Your task to perform on an android device: Show the shopping cart on walmart.com. Add razer naga to the cart on walmart.com, then select checkout. Image 0: 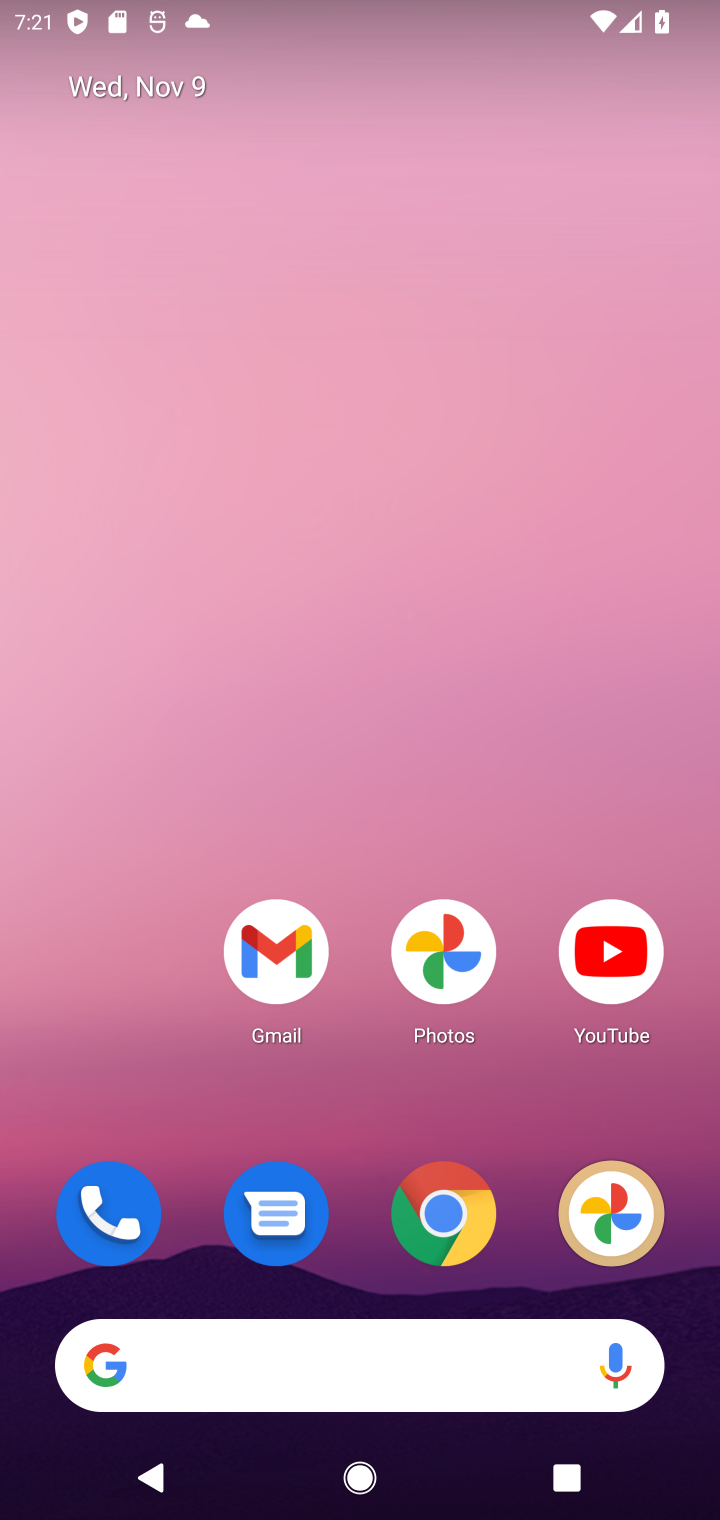
Step 0: click (436, 1208)
Your task to perform on an android device: Show the shopping cart on walmart.com. Add razer naga to the cart on walmart.com, then select checkout. Image 1: 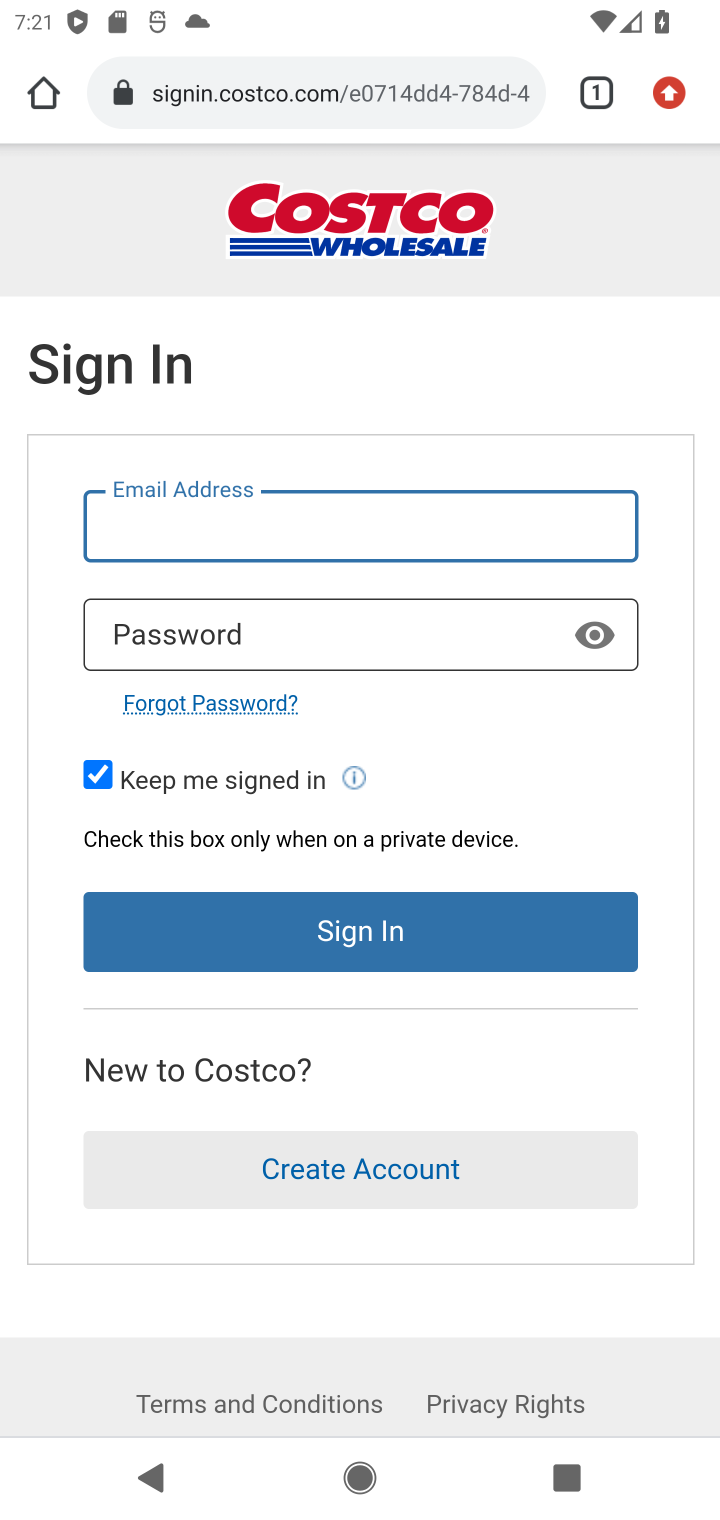
Step 1: click (328, 85)
Your task to perform on an android device: Show the shopping cart on walmart.com. Add razer naga to the cart on walmart.com, then select checkout. Image 2: 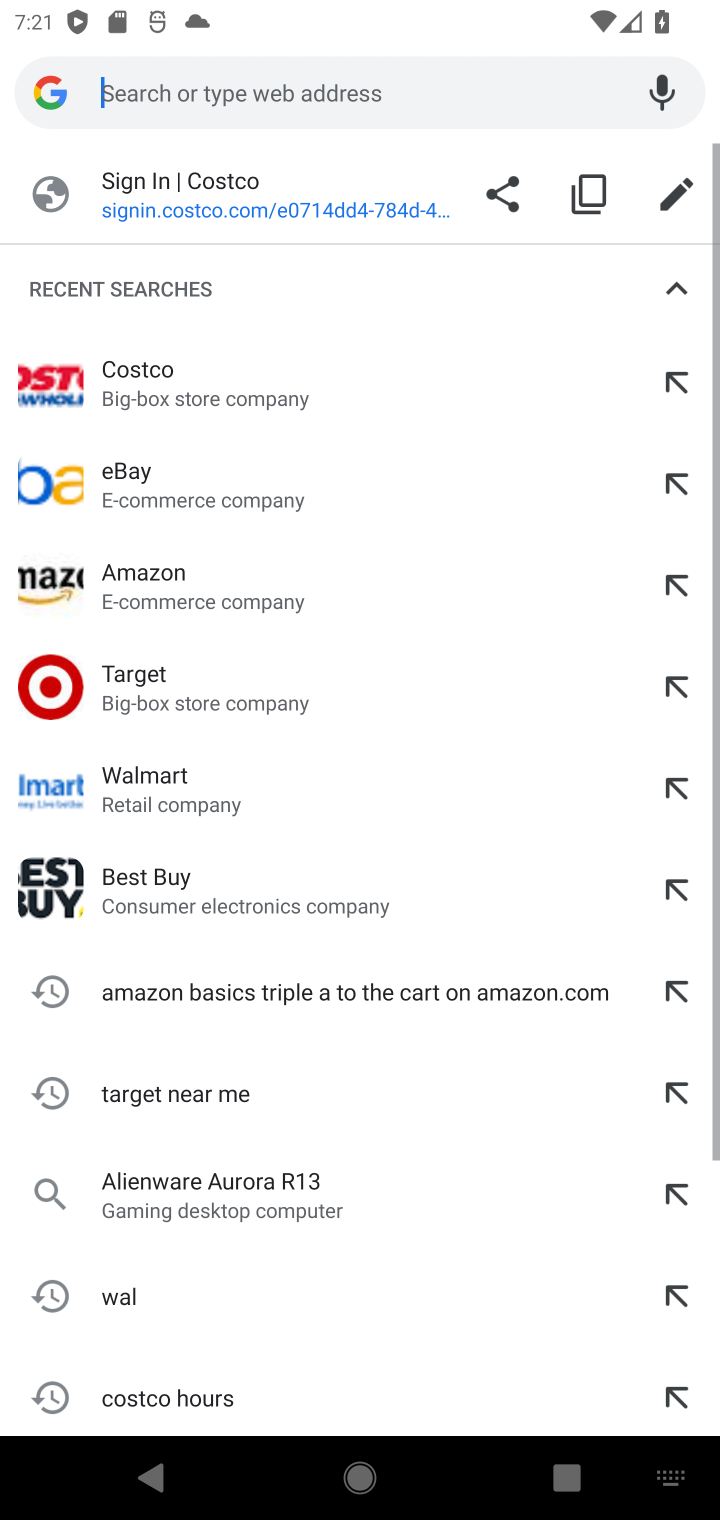
Step 2: click (172, 789)
Your task to perform on an android device: Show the shopping cart on walmart.com. Add razer naga to the cart on walmart.com, then select checkout. Image 3: 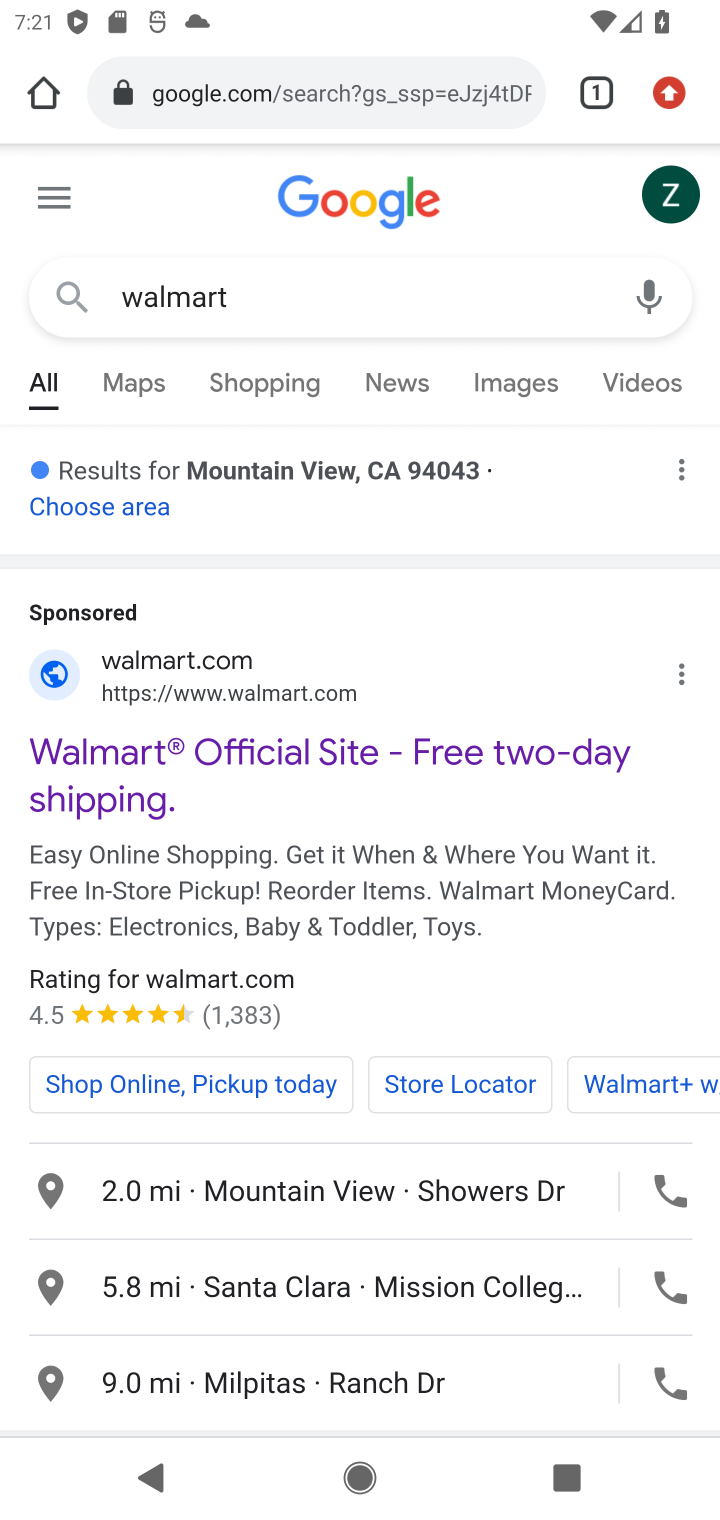
Step 3: drag from (265, 1150) to (265, 482)
Your task to perform on an android device: Show the shopping cart on walmart.com. Add razer naga to the cart on walmart.com, then select checkout. Image 4: 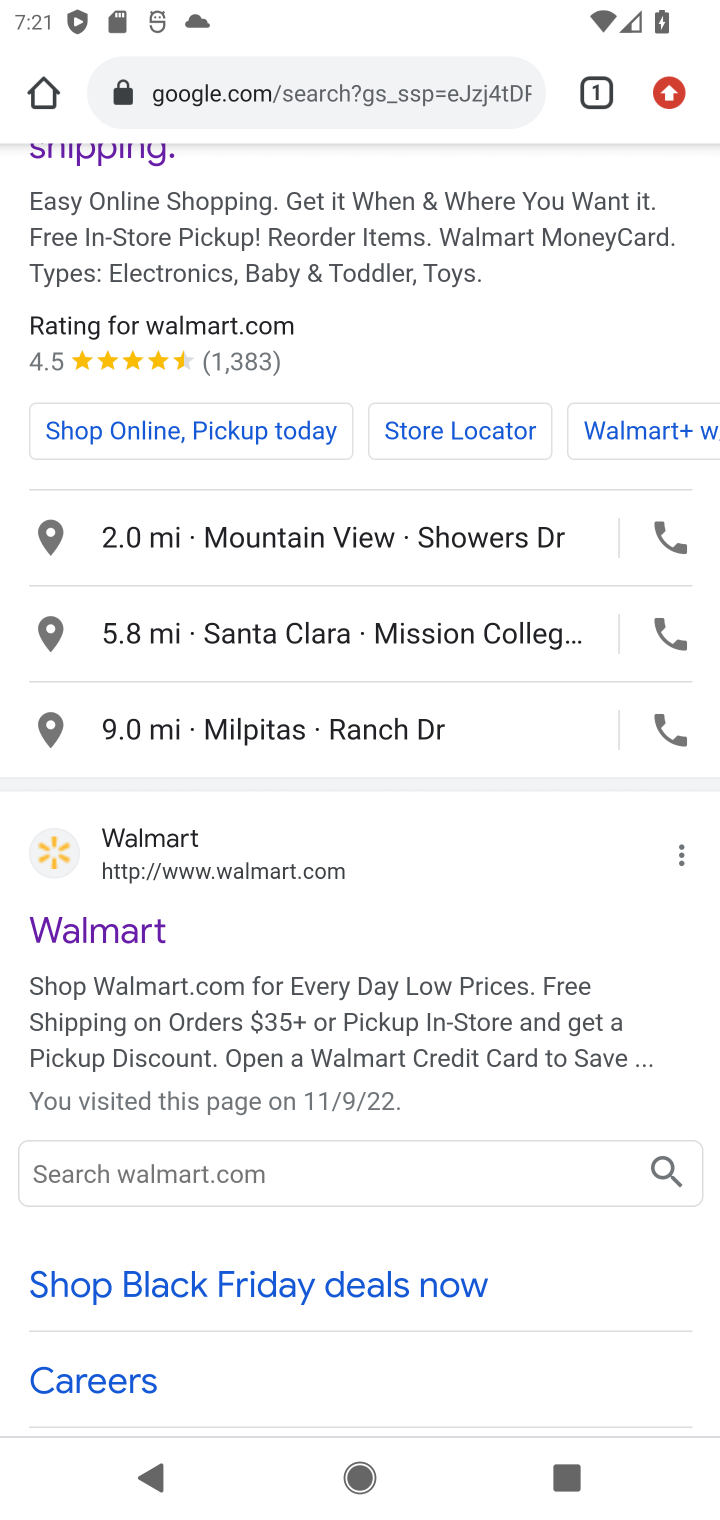
Step 4: click (99, 927)
Your task to perform on an android device: Show the shopping cart on walmart.com. Add razer naga to the cart on walmart.com, then select checkout. Image 5: 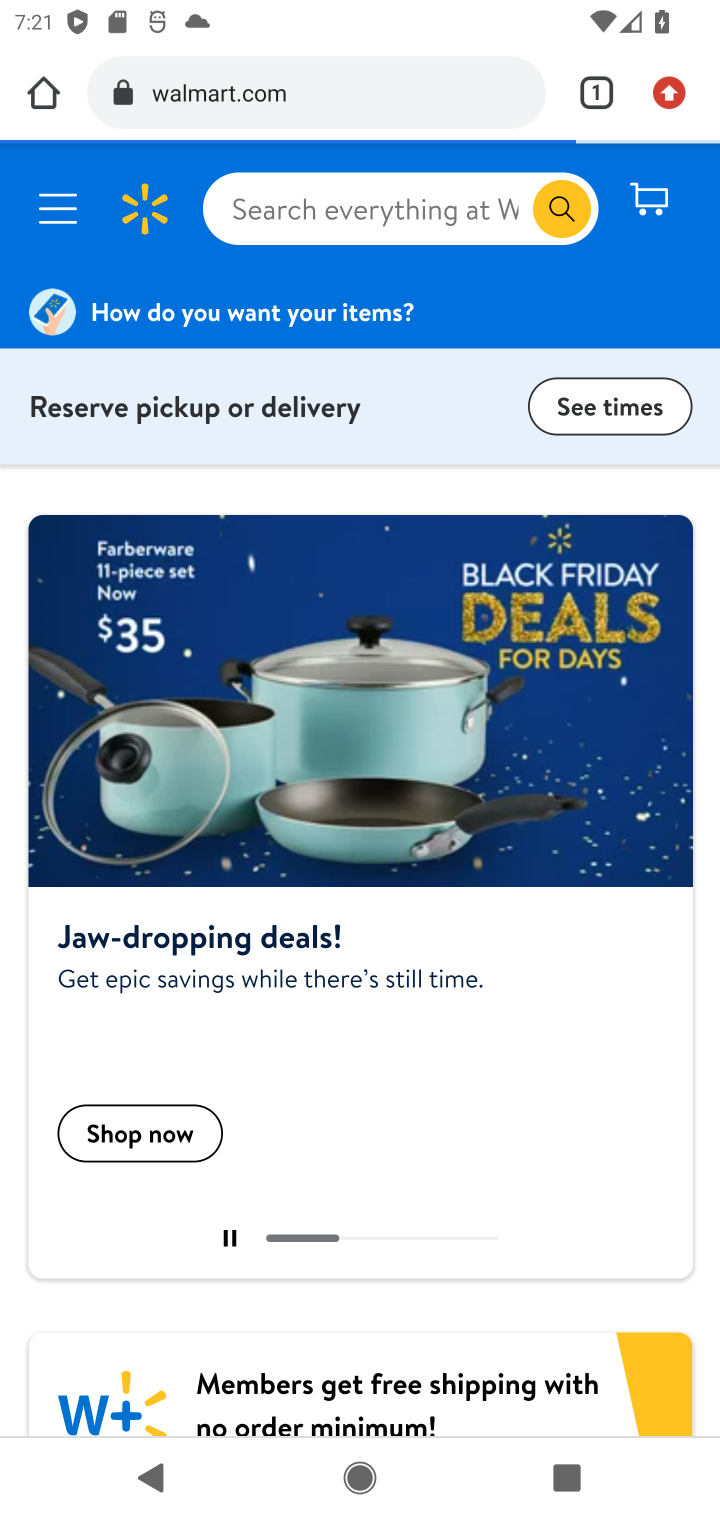
Step 5: click (347, 207)
Your task to perform on an android device: Show the shopping cart on walmart.com. Add razer naga to the cart on walmart.com, then select checkout. Image 6: 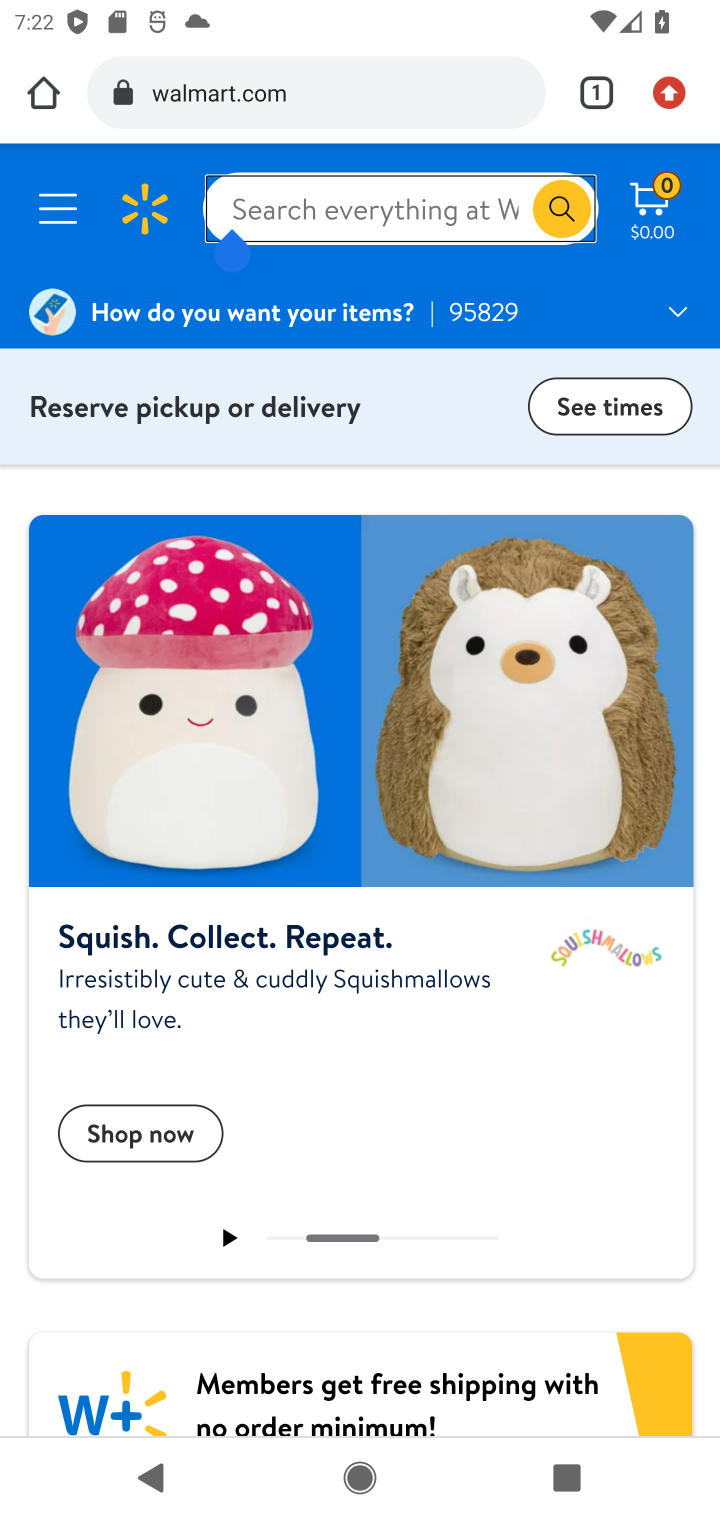
Step 6: type "razer naga"
Your task to perform on an android device: Show the shopping cart on walmart.com. Add razer naga to the cart on walmart.com, then select checkout. Image 7: 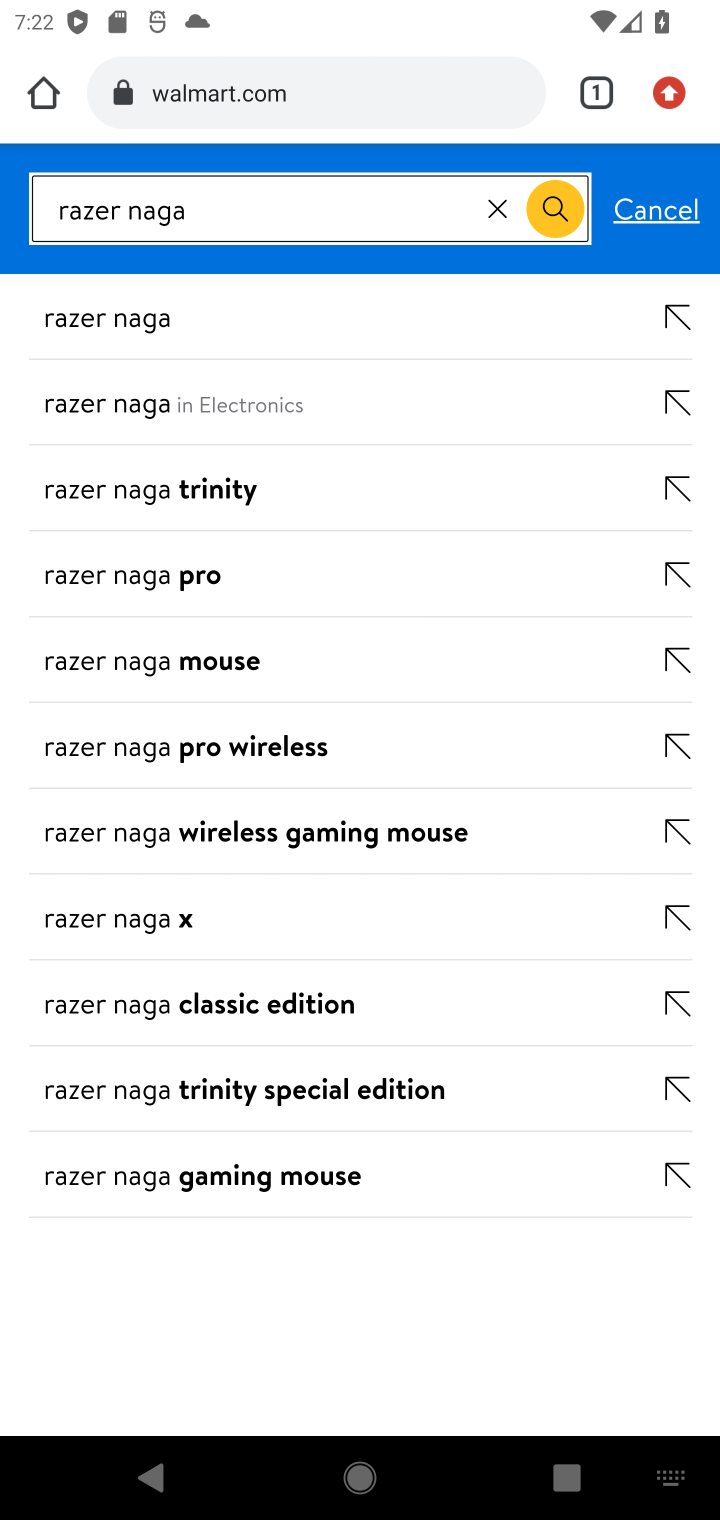
Step 7: click (79, 319)
Your task to perform on an android device: Show the shopping cart on walmart.com. Add razer naga to the cart on walmart.com, then select checkout. Image 8: 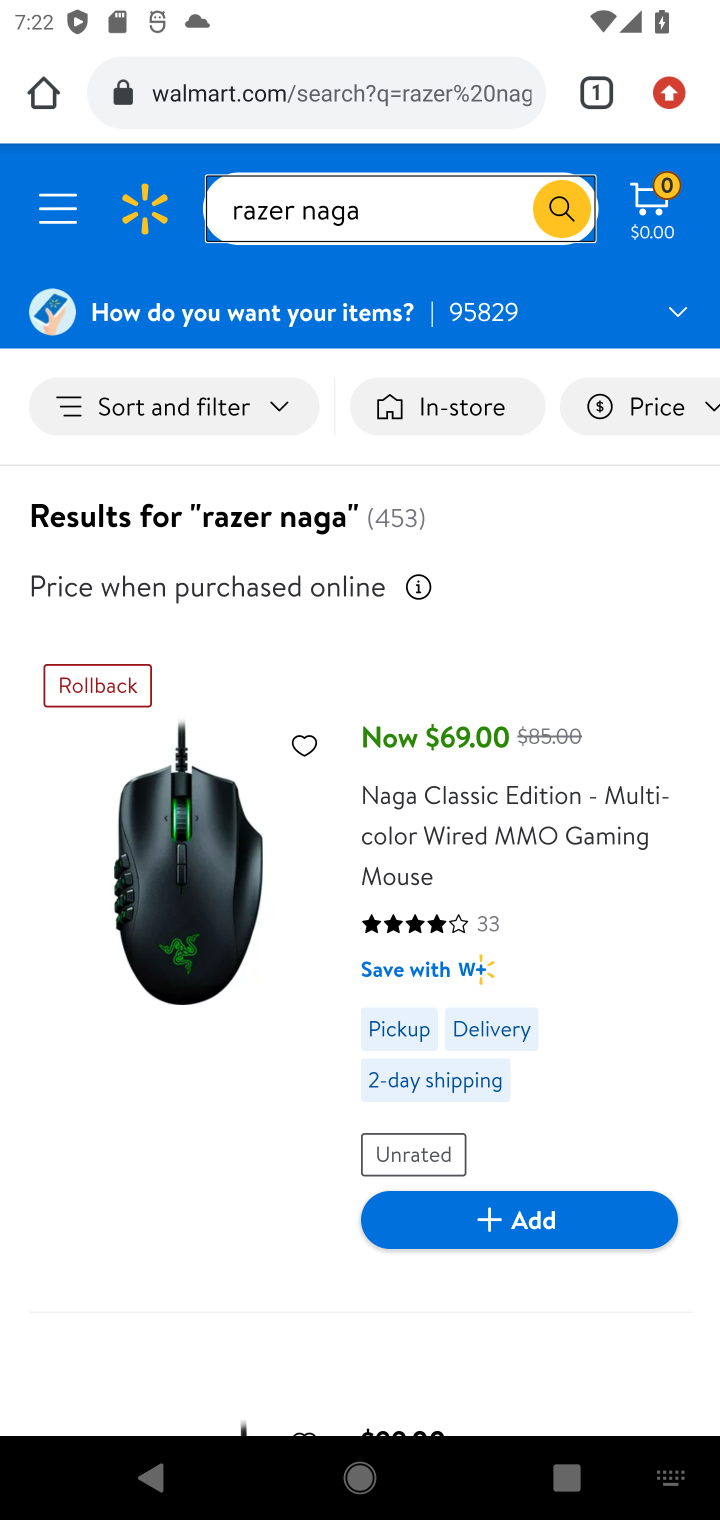
Step 8: click (593, 1233)
Your task to perform on an android device: Show the shopping cart on walmart.com. Add razer naga to the cart on walmart.com, then select checkout. Image 9: 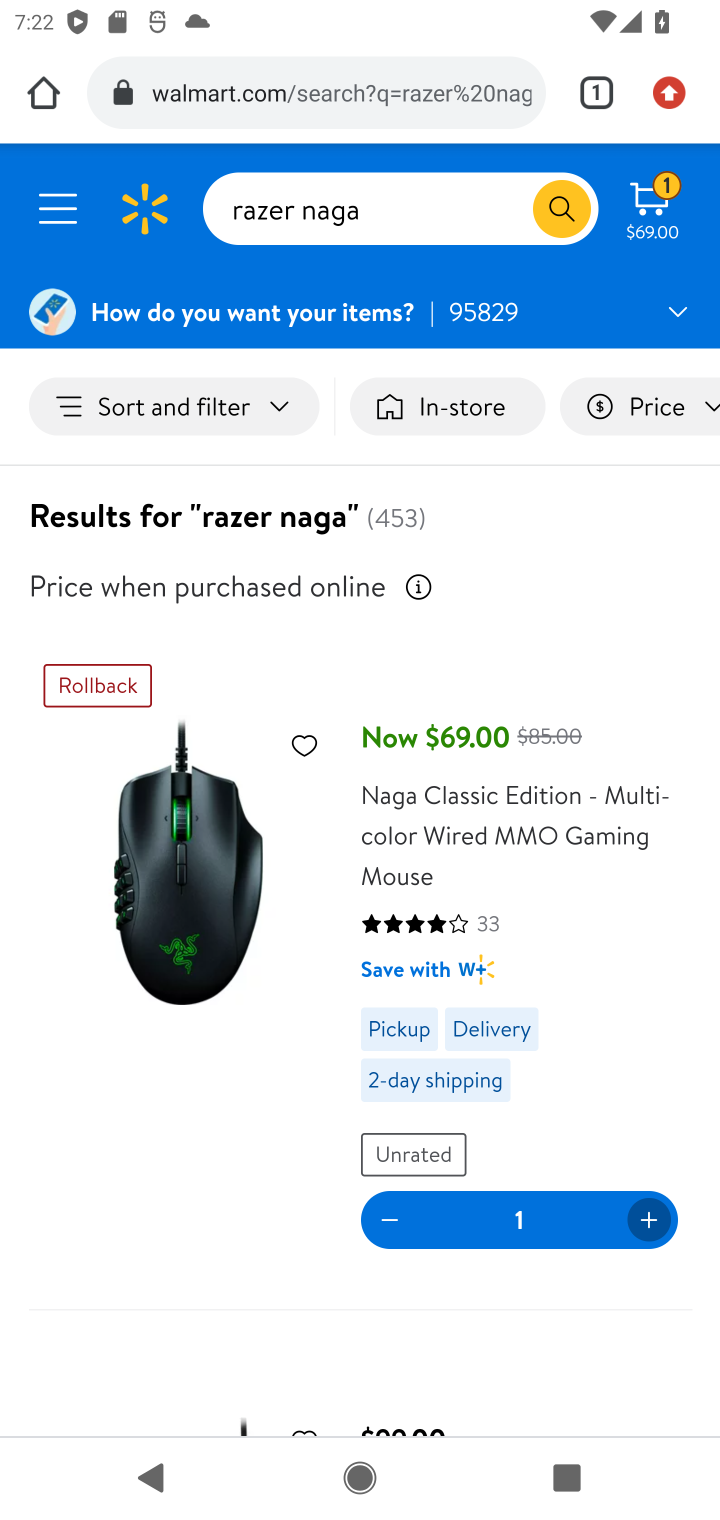
Step 9: click (651, 197)
Your task to perform on an android device: Show the shopping cart on walmart.com. Add razer naga to the cart on walmart.com, then select checkout. Image 10: 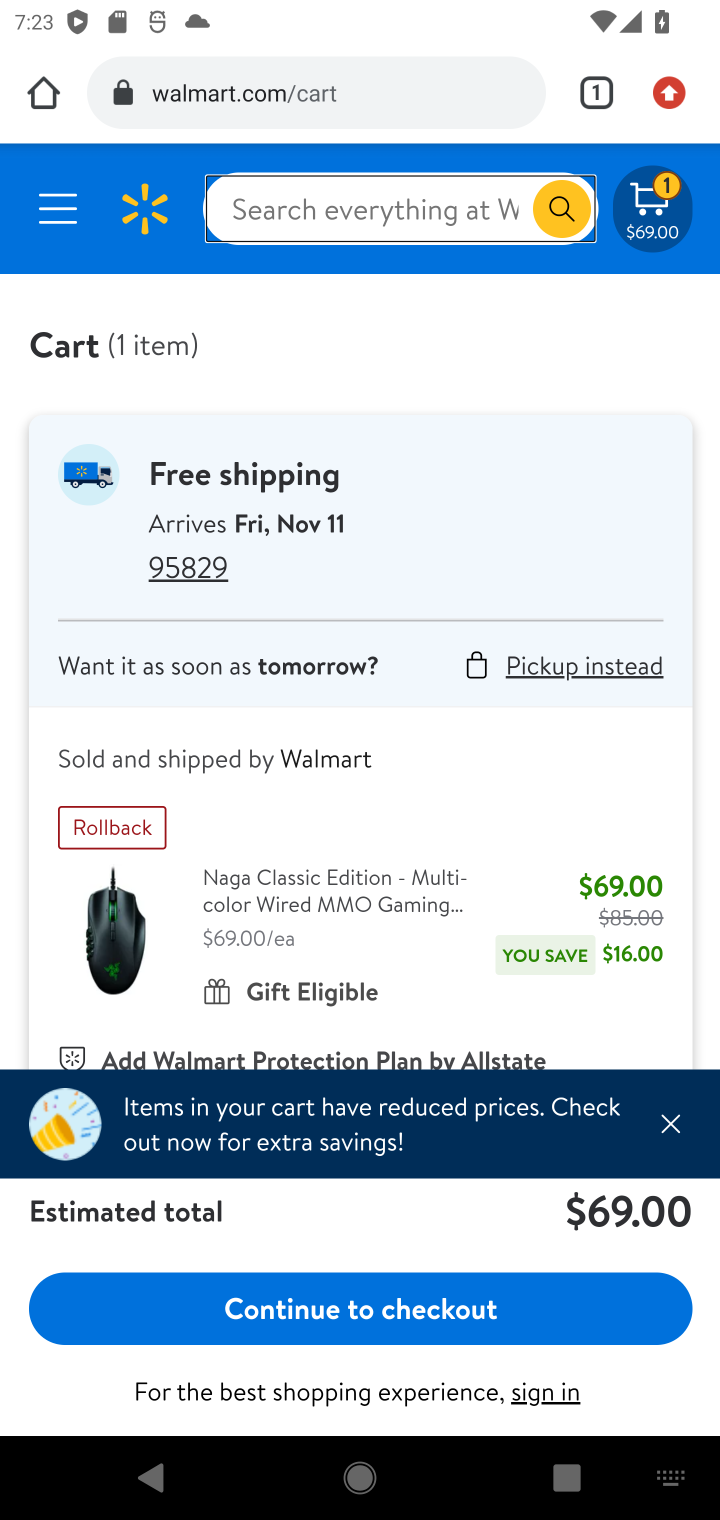
Step 10: click (353, 1306)
Your task to perform on an android device: Show the shopping cart on walmart.com. Add razer naga to the cart on walmart.com, then select checkout. Image 11: 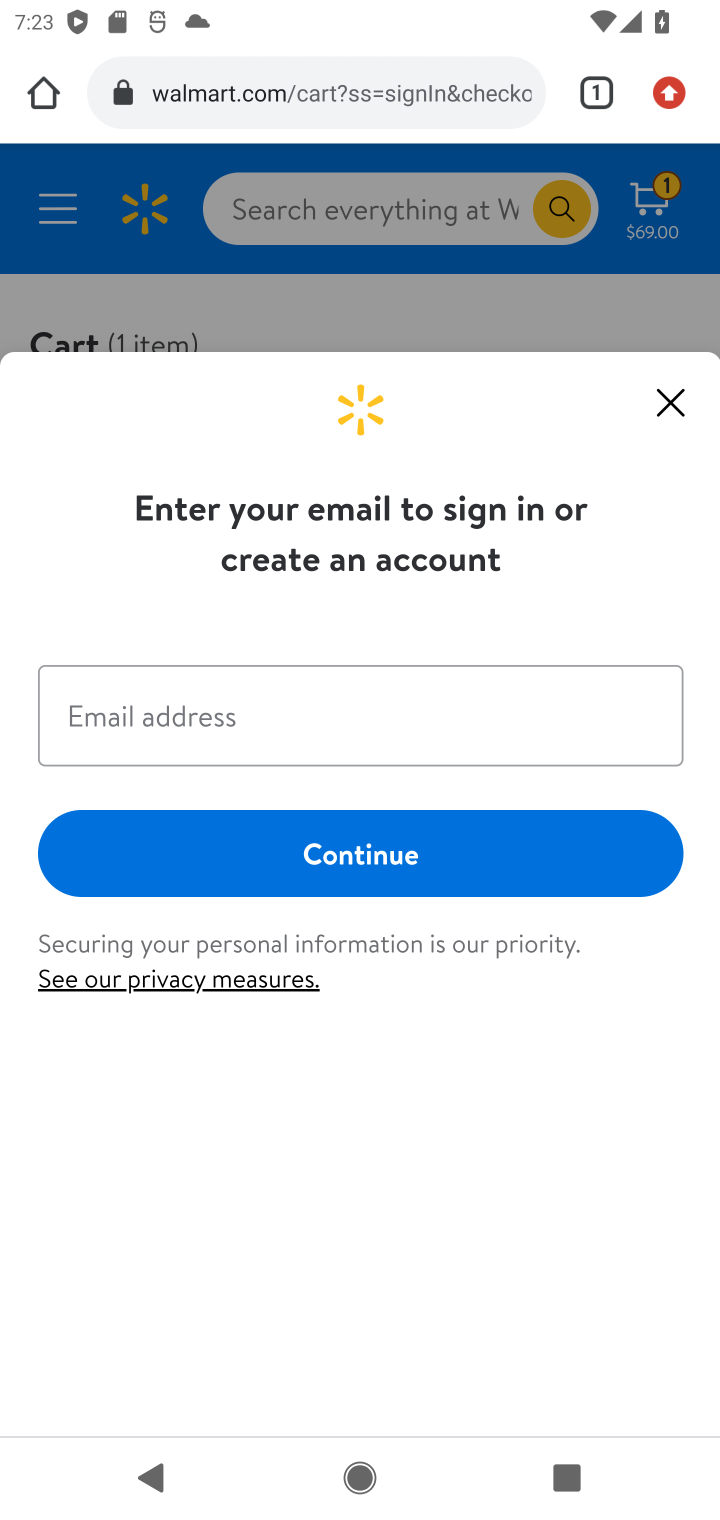
Step 11: task complete